Your task to perform on an android device: Search for Mexican restaurants on Maps Image 0: 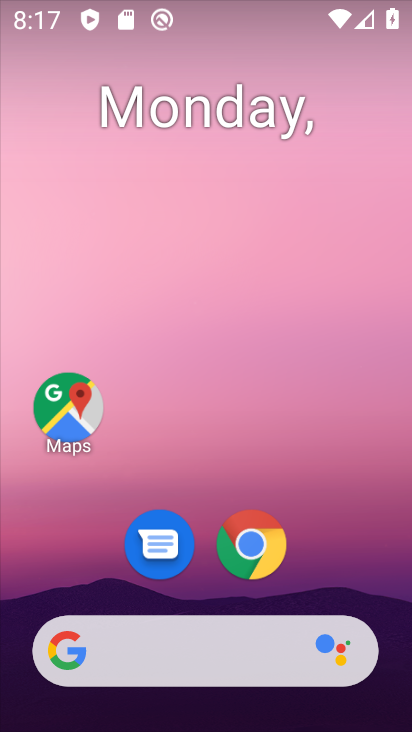
Step 0: click (70, 402)
Your task to perform on an android device: Search for Mexican restaurants on Maps Image 1: 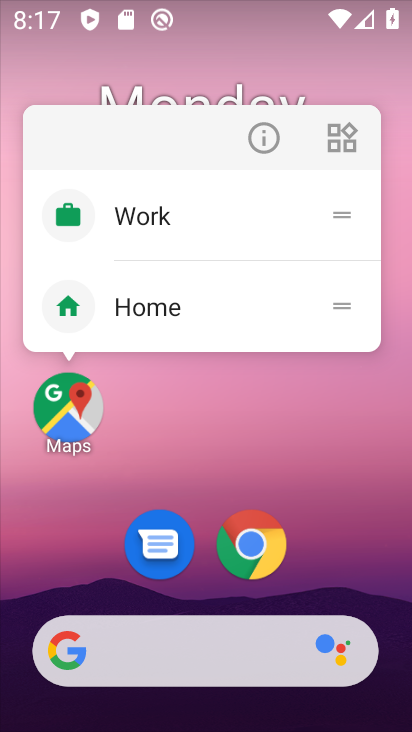
Step 1: click (82, 413)
Your task to perform on an android device: Search for Mexican restaurants on Maps Image 2: 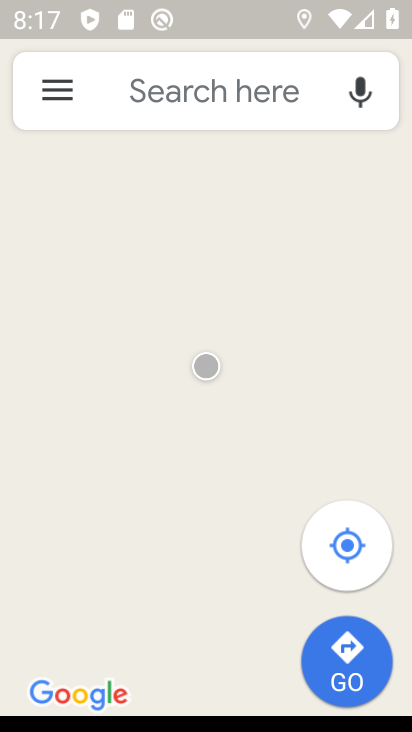
Step 2: click (200, 98)
Your task to perform on an android device: Search for Mexican restaurants on Maps Image 3: 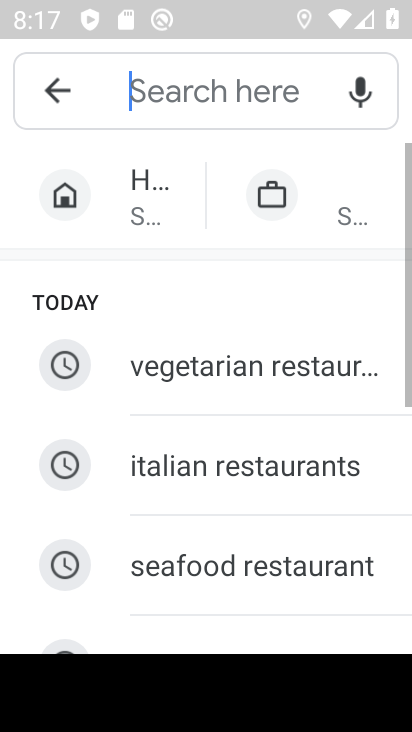
Step 3: drag from (228, 552) to (236, 221)
Your task to perform on an android device: Search for Mexican restaurants on Maps Image 4: 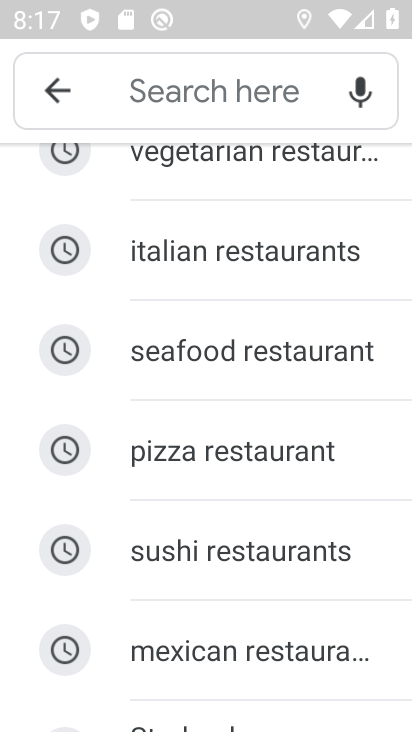
Step 4: click (210, 640)
Your task to perform on an android device: Search for Mexican restaurants on Maps Image 5: 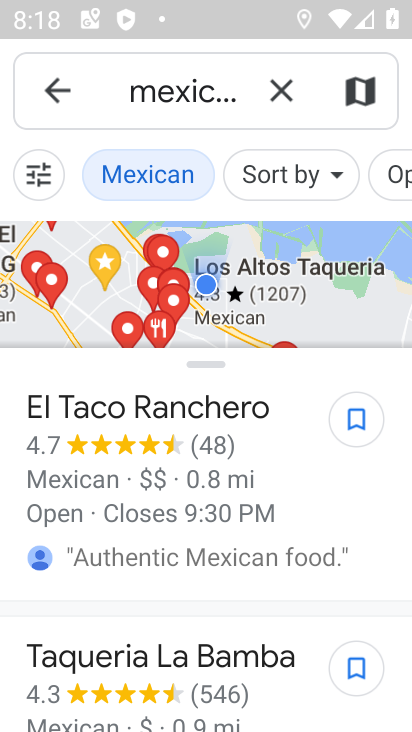
Step 5: task complete